Your task to perform on an android device: Check the news Image 0: 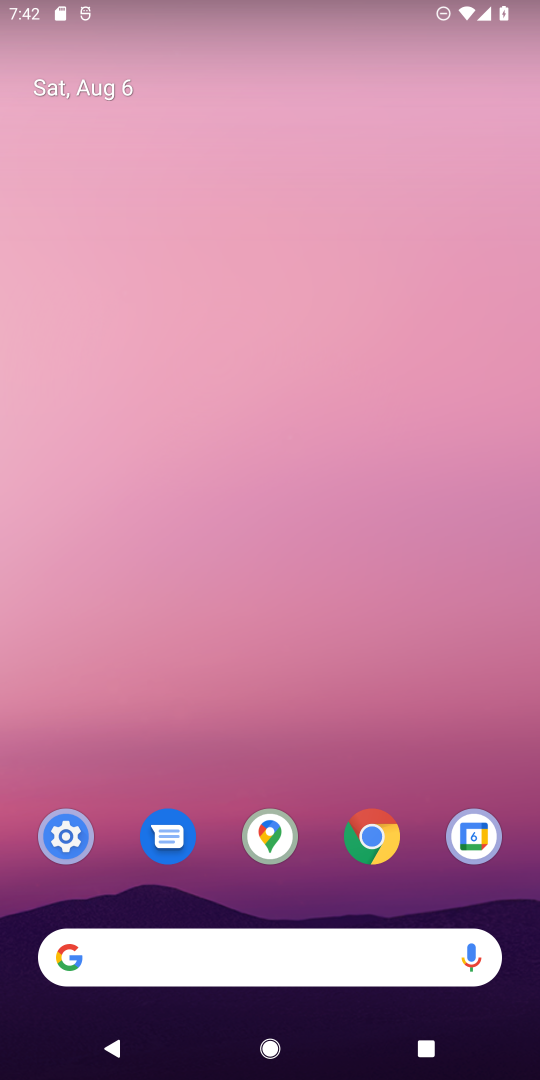
Step 0: click (292, 264)
Your task to perform on an android device: Check the news Image 1: 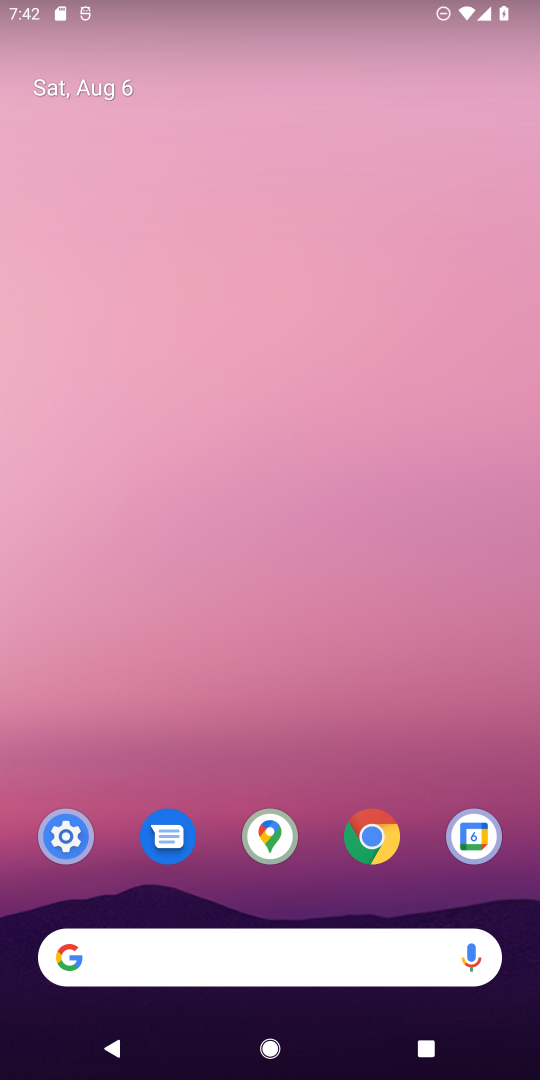
Step 1: drag from (275, 911) to (228, 362)
Your task to perform on an android device: Check the news Image 2: 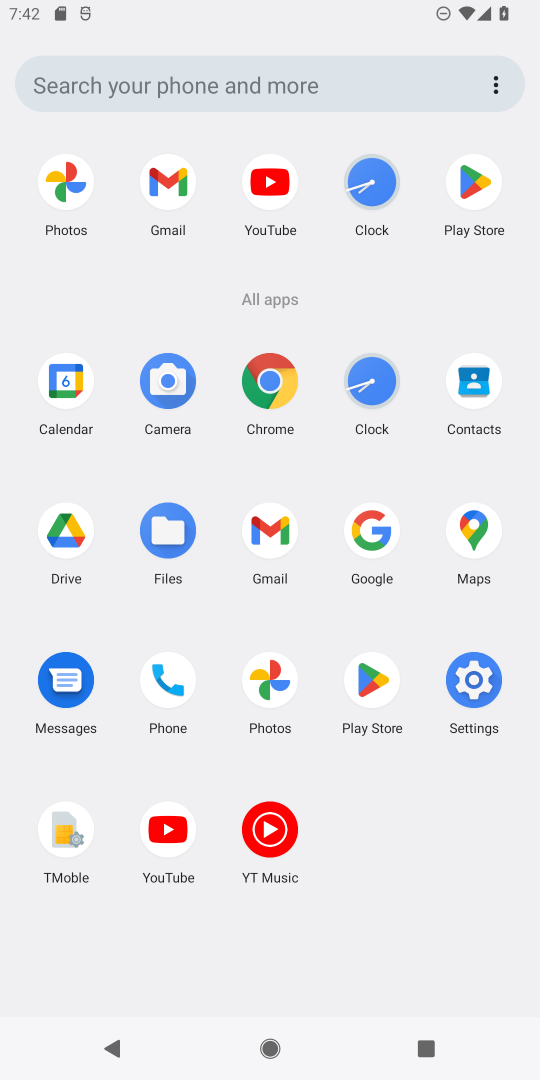
Step 2: click (367, 534)
Your task to perform on an android device: Check the news Image 3: 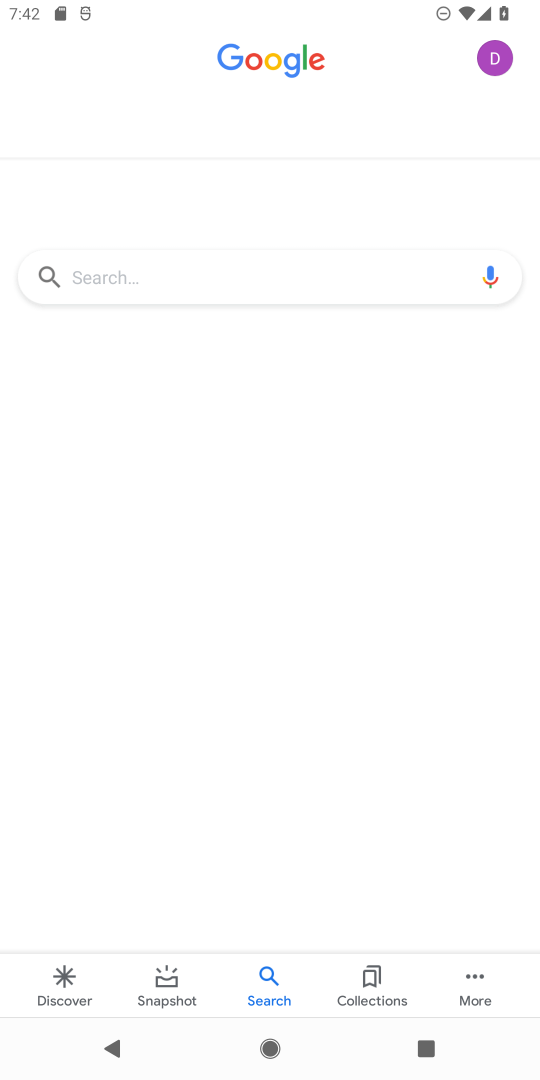
Step 3: click (129, 285)
Your task to perform on an android device: Check the news Image 4: 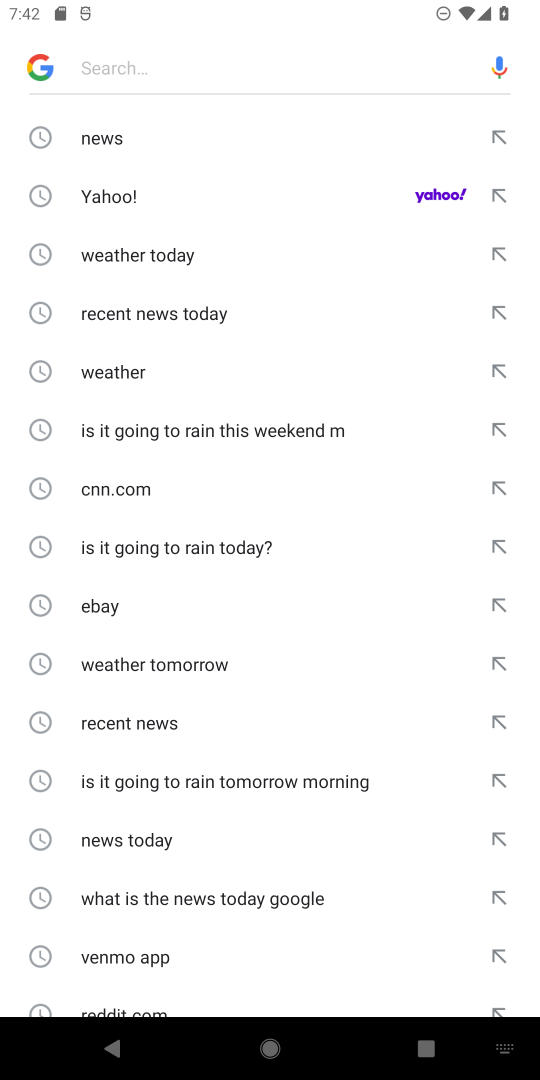
Step 4: click (91, 151)
Your task to perform on an android device: Check the news Image 5: 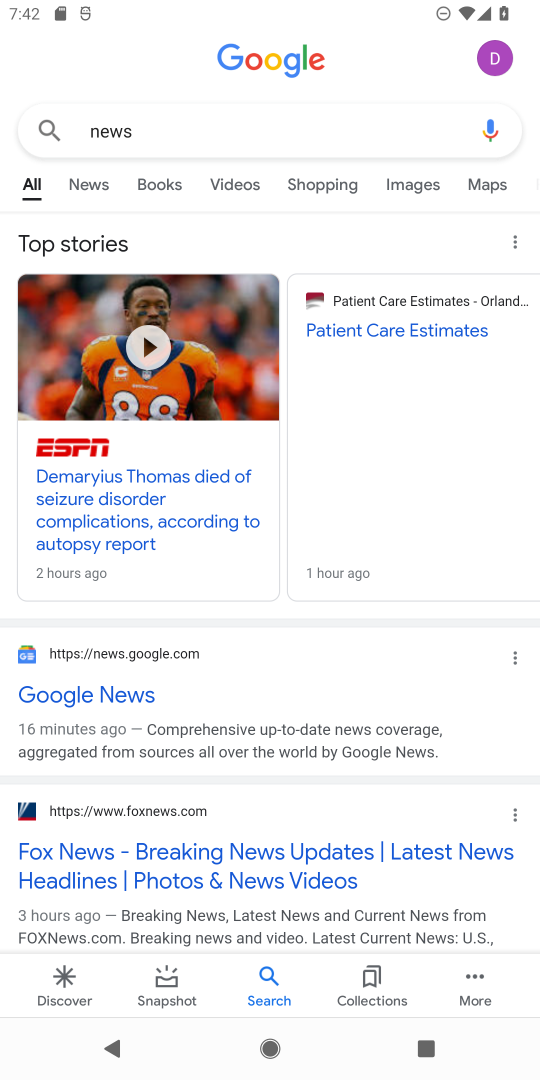
Step 5: task complete